Your task to perform on an android device: Do I have any events today? Image 0: 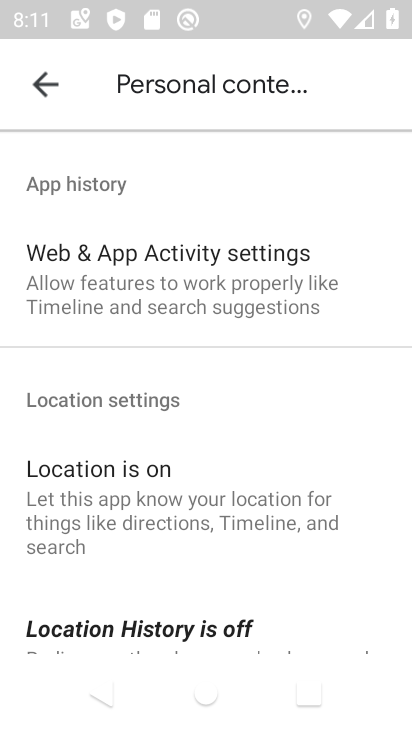
Step 0: press home button
Your task to perform on an android device: Do I have any events today? Image 1: 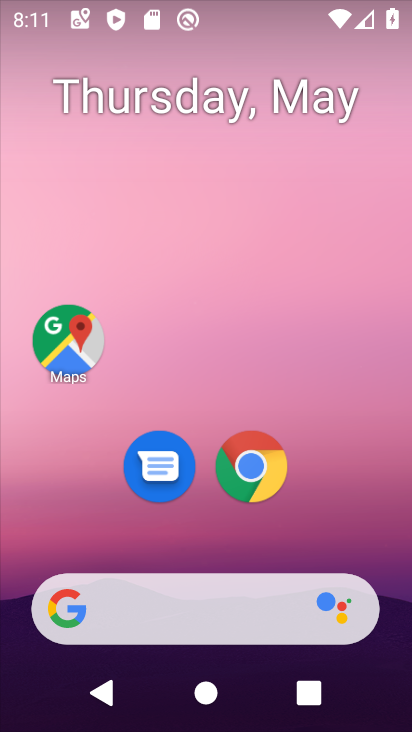
Step 1: drag from (334, 564) to (359, 20)
Your task to perform on an android device: Do I have any events today? Image 2: 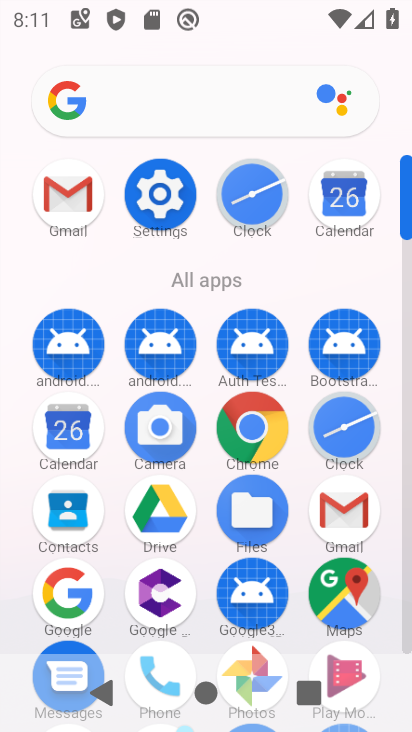
Step 2: click (341, 201)
Your task to perform on an android device: Do I have any events today? Image 3: 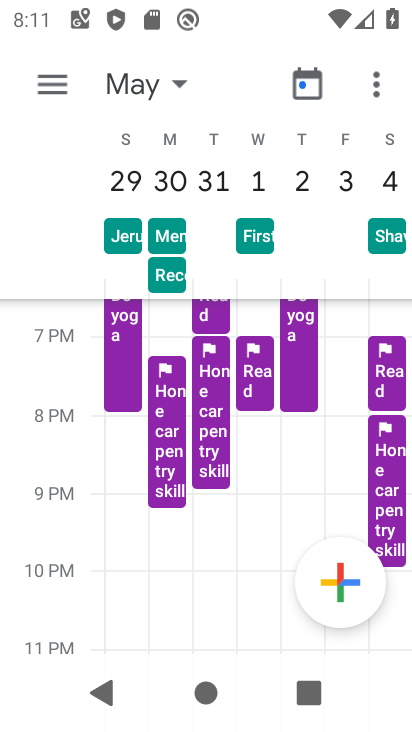
Step 3: click (58, 85)
Your task to perform on an android device: Do I have any events today? Image 4: 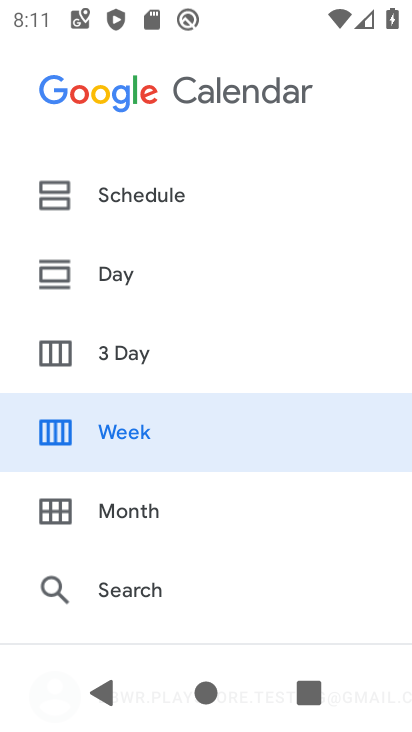
Step 4: click (117, 195)
Your task to perform on an android device: Do I have any events today? Image 5: 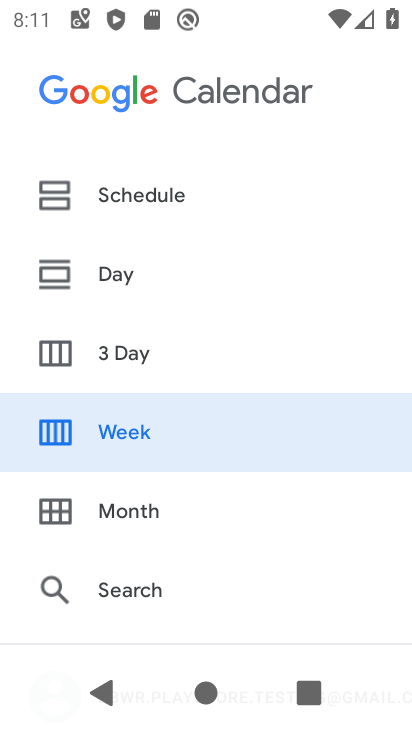
Step 5: click (117, 195)
Your task to perform on an android device: Do I have any events today? Image 6: 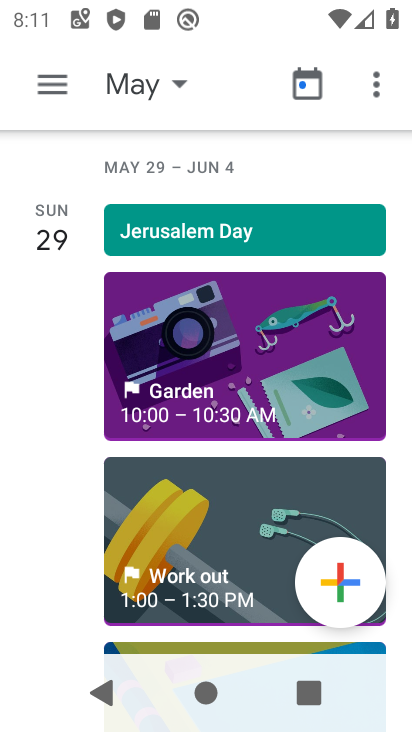
Step 6: drag from (203, 348) to (183, 681)
Your task to perform on an android device: Do I have any events today? Image 7: 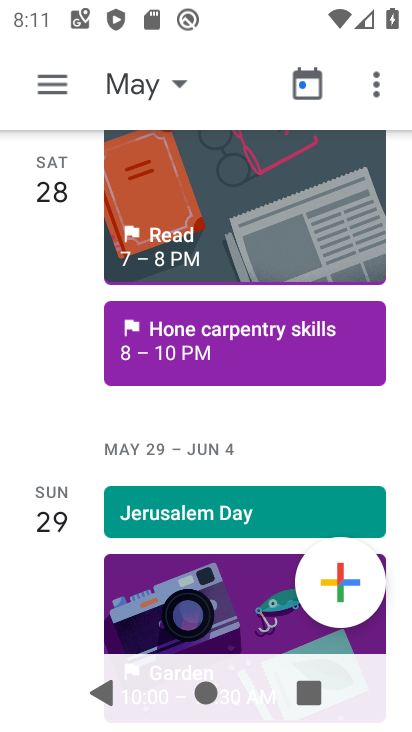
Step 7: drag from (195, 177) to (218, 668)
Your task to perform on an android device: Do I have any events today? Image 8: 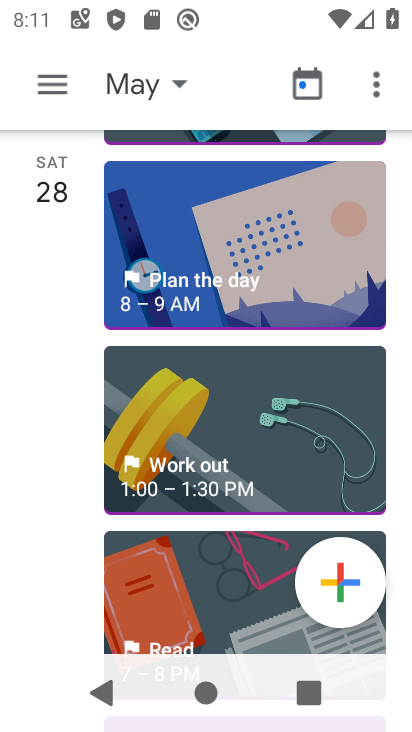
Step 8: drag from (197, 220) to (249, 699)
Your task to perform on an android device: Do I have any events today? Image 9: 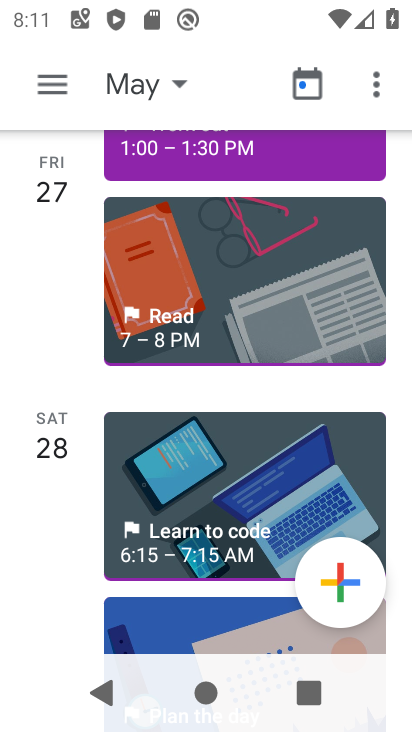
Step 9: drag from (193, 268) to (205, 672)
Your task to perform on an android device: Do I have any events today? Image 10: 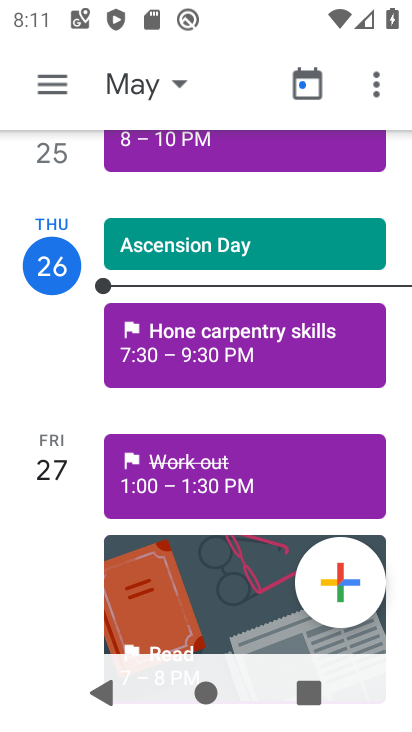
Step 10: click (50, 89)
Your task to perform on an android device: Do I have any events today? Image 11: 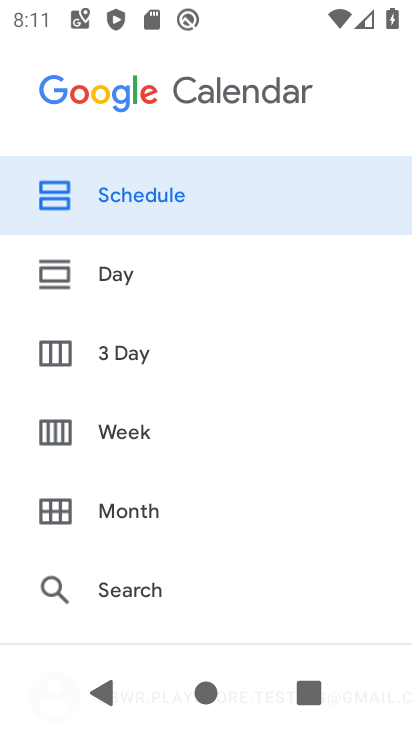
Step 11: click (111, 274)
Your task to perform on an android device: Do I have any events today? Image 12: 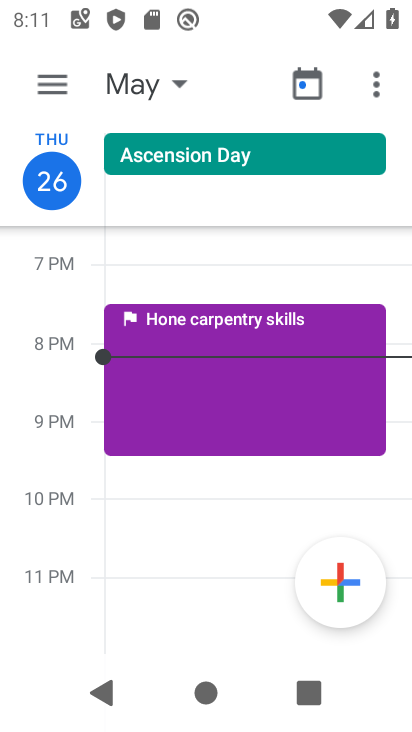
Step 12: task complete